Your task to perform on an android device: Search for flights from Buenos aires to Tokyo Image 0: 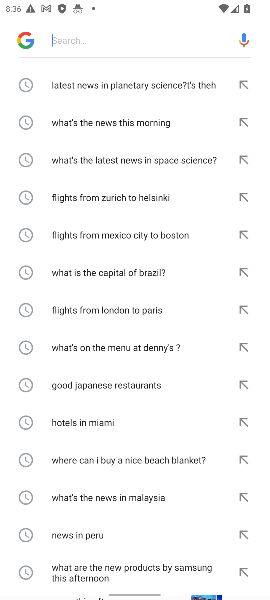
Step 0: press home button
Your task to perform on an android device: Search for flights from Buenos aires to Tokyo Image 1: 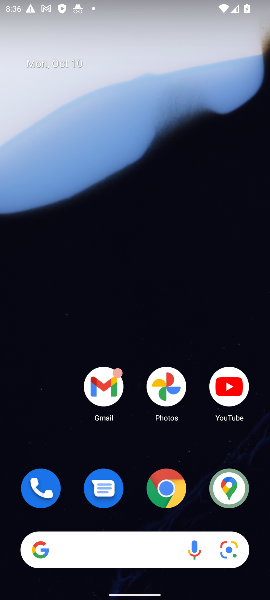
Step 1: drag from (200, 446) to (136, 17)
Your task to perform on an android device: Search for flights from Buenos aires to Tokyo Image 2: 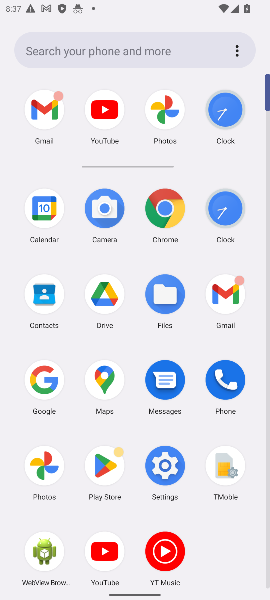
Step 2: click (162, 209)
Your task to perform on an android device: Search for flights from Buenos aires to Tokyo Image 3: 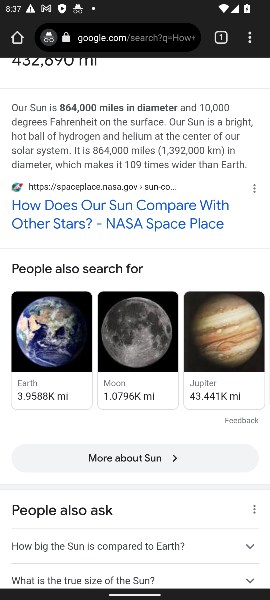
Step 3: click (78, 45)
Your task to perform on an android device: Search for flights from Buenos aires to Tokyo Image 4: 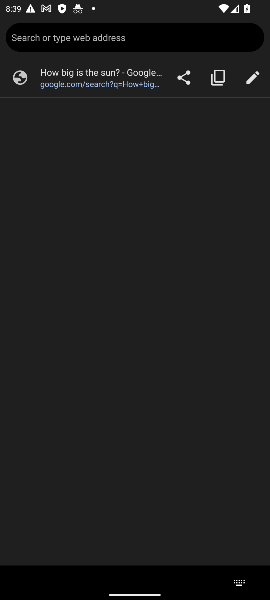
Step 4: type "flights from Buenos aires to Tokyo"
Your task to perform on an android device: Search for flights from Buenos aires to Tokyo Image 5: 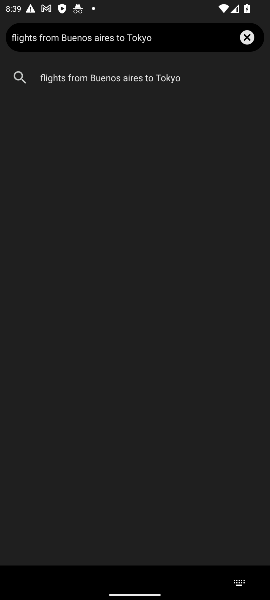
Step 5: press enter
Your task to perform on an android device: Search for flights from Buenos aires to Tokyo Image 6: 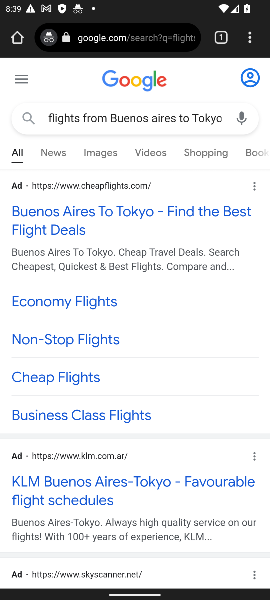
Step 6: task complete